Your task to perform on an android device: Open Maps and search for coffee Image 0: 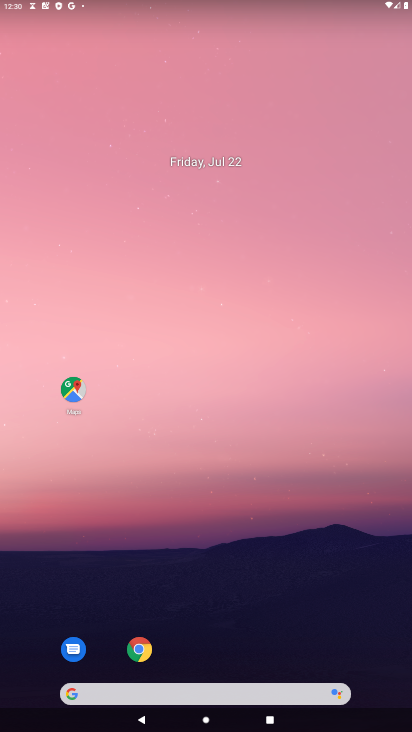
Step 0: click (75, 400)
Your task to perform on an android device: Open Maps and search for coffee Image 1: 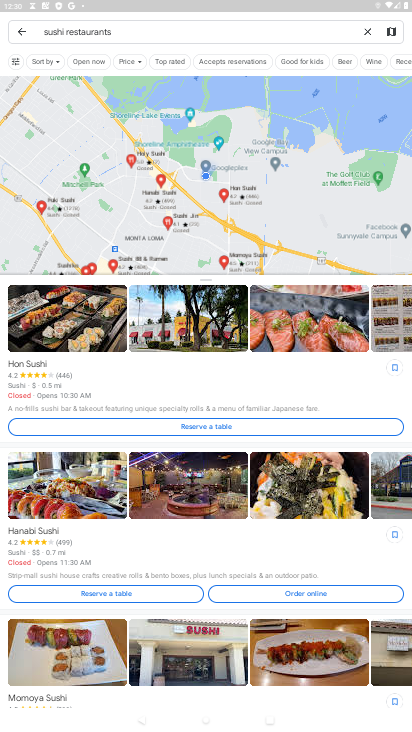
Step 1: click (280, 30)
Your task to perform on an android device: Open Maps and search for coffee Image 2: 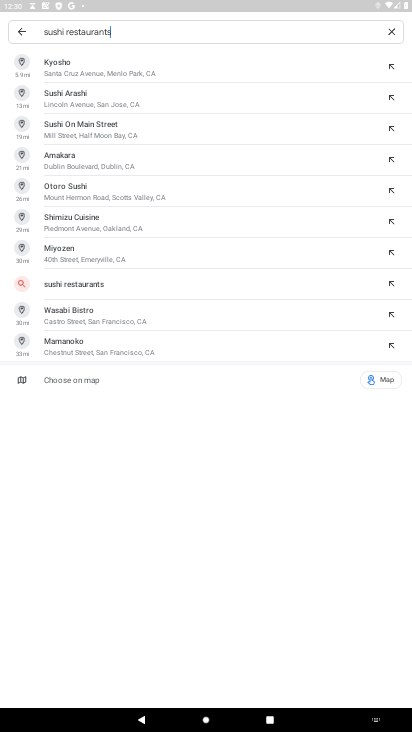
Step 2: click (396, 31)
Your task to perform on an android device: Open Maps and search for coffee Image 3: 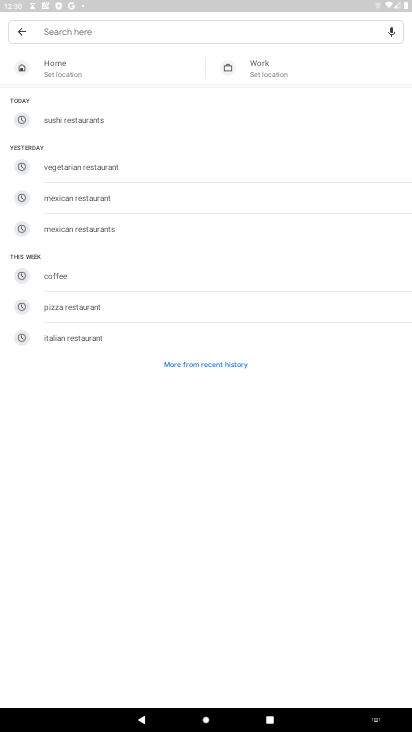
Step 3: click (113, 279)
Your task to perform on an android device: Open Maps and search for coffee Image 4: 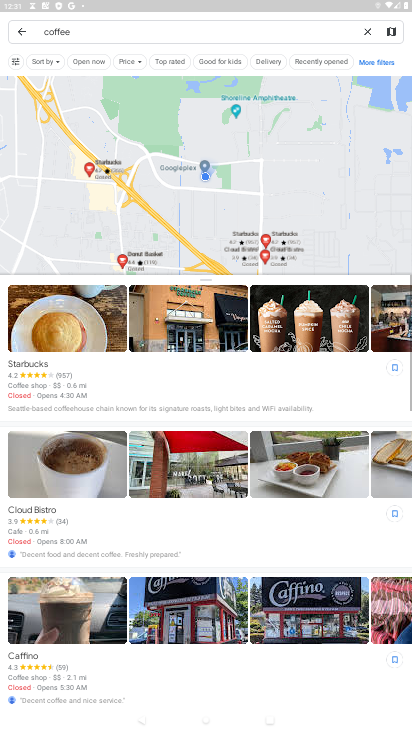
Step 4: task complete